Your task to perform on an android device: Search for seafood restaurants on Google Maps Image 0: 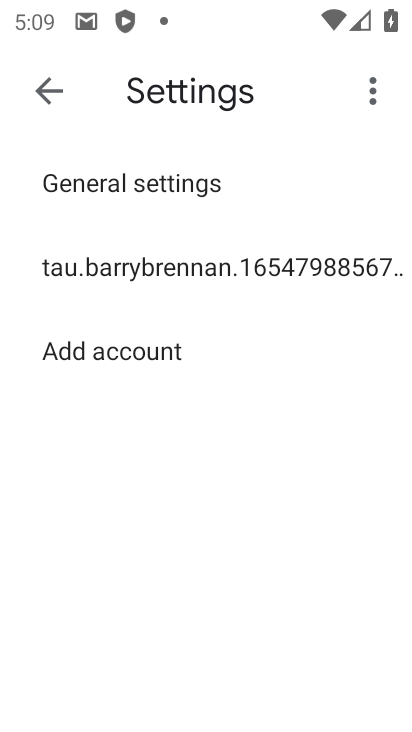
Step 0: press home button
Your task to perform on an android device: Search for seafood restaurants on Google Maps Image 1: 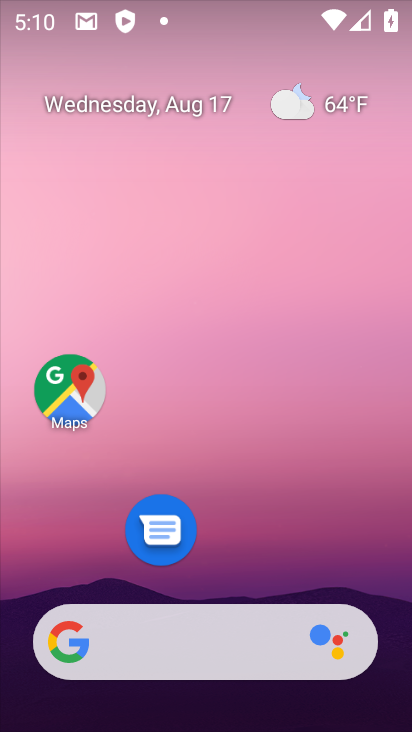
Step 1: drag from (210, 566) to (210, 53)
Your task to perform on an android device: Search for seafood restaurants on Google Maps Image 2: 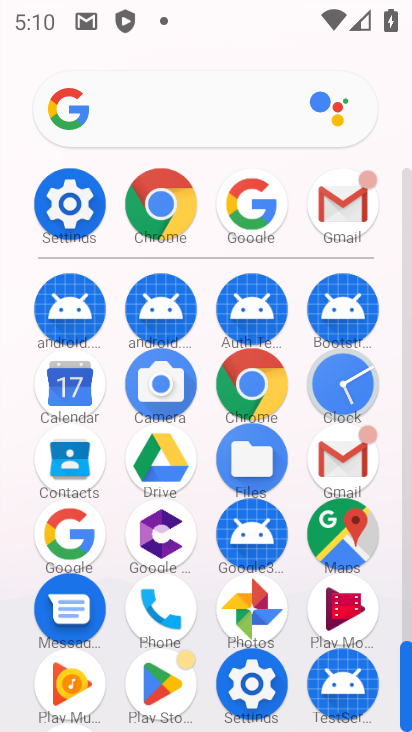
Step 2: drag from (217, 626) to (351, 532)
Your task to perform on an android device: Search for seafood restaurants on Google Maps Image 3: 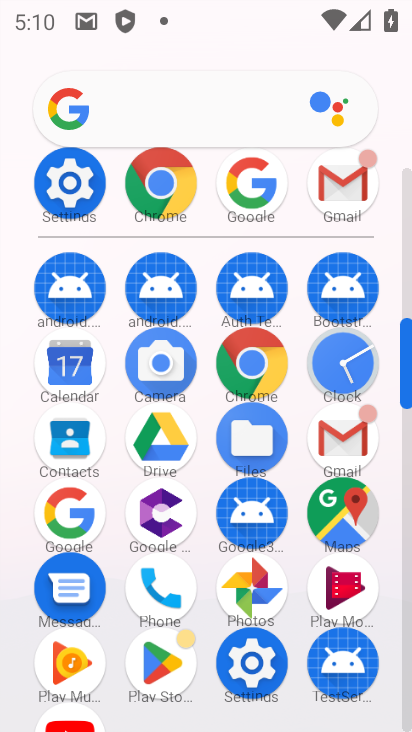
Step 3: click (351, 532)
Your task to perform on an android device: Search for seafood restaurants on Google Maps Image 4: 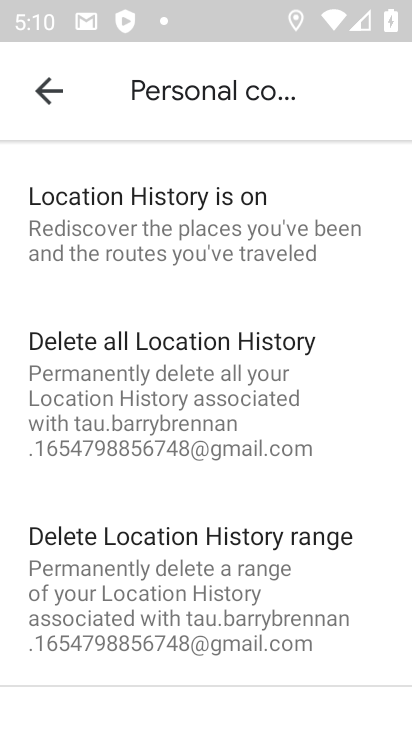
Step 4: click (34, 100)
Your task to perform on an android device: Search for seafood restaurants on Google Maps Image 5: 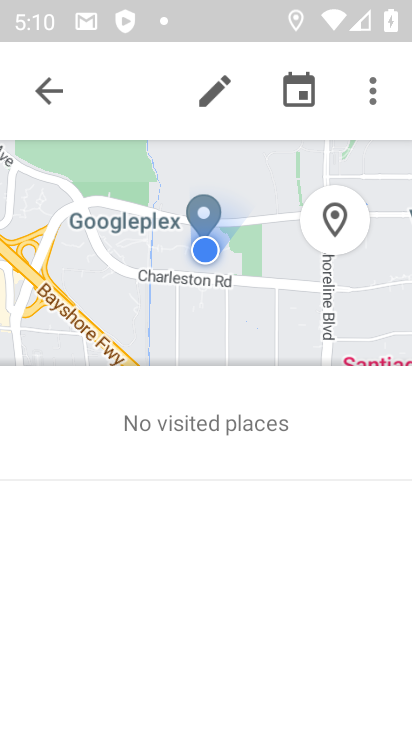
Step 5: click (48, 87)
Your task to perform on an android device: Search for seafood restaurants on Google Maps Image 6: 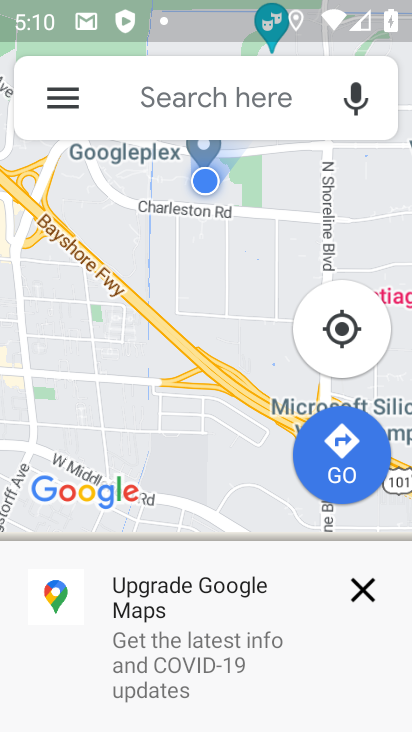
Step 6: click (175, 92)
Your task to perform on an android device: Search for seafood restaurants on Google Maps Image 7: 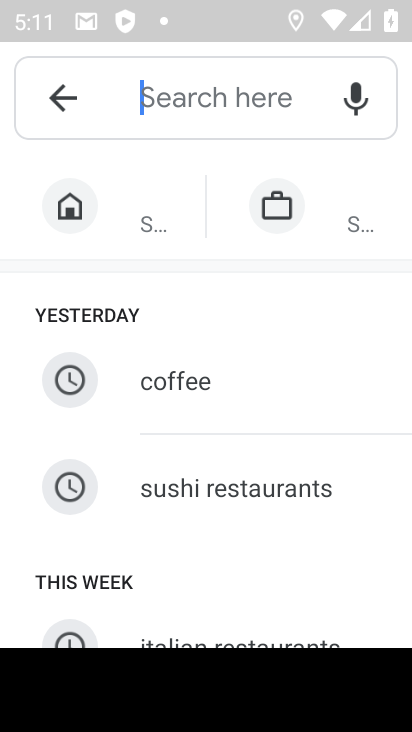
Step 7: type "seafood restaurants "
Your task to perform on an android device: Search for seafood restaurants on Google Maps Image 8: 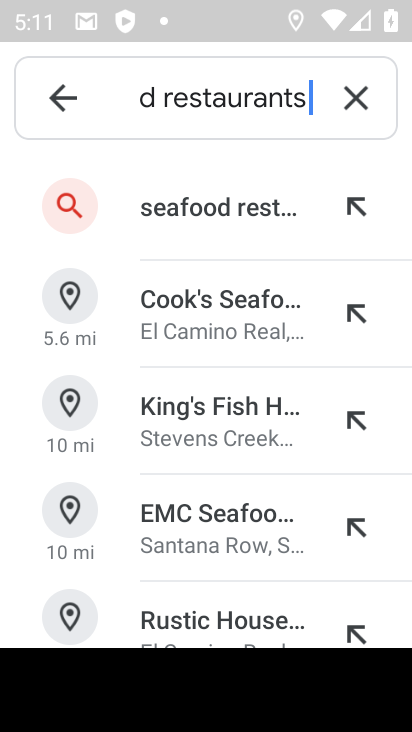
Step 8: click (252, 211)
Your task to perform on an android device: Search for seafood restaurants on Google Maps Image 9: 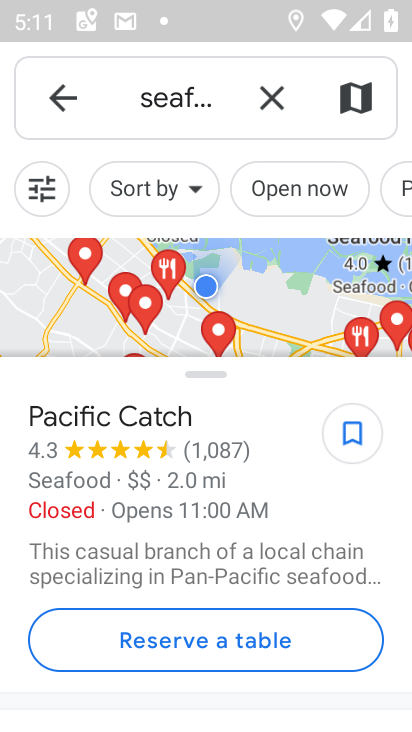
Step 9: task complete